Your task to perform on an android device: Open Google Maps and go to "Timeline" Image 0: 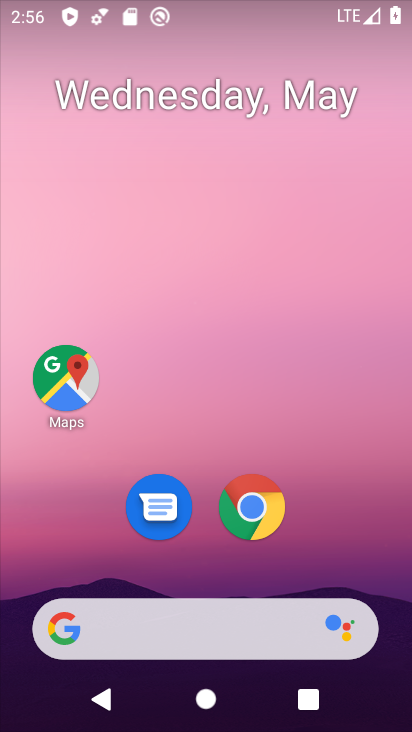
Step 0: drag from (348, 501) to (275, 44)
Your task to perform on an android device: Open Google Maps and go to "Timeline" Image 1: 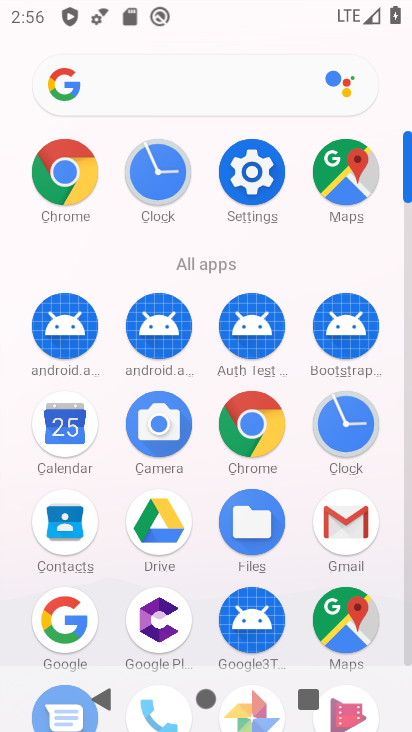
Step 1: drag from (5, 563) to (25, 260)
Your task to perform on an android device: Open Google Maps and go to "Timeline" Image 2: 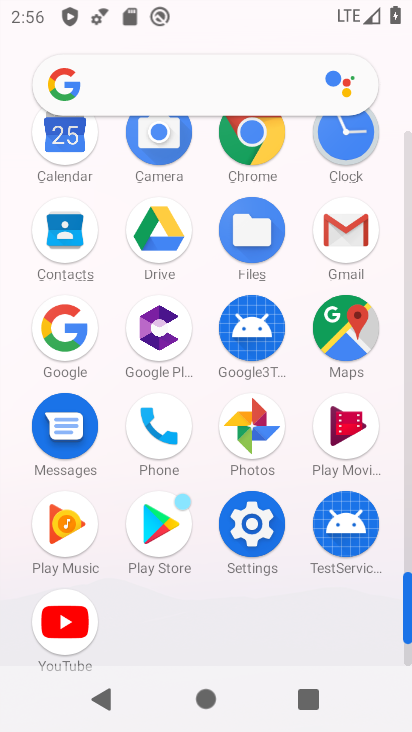
Step 2: click (345, 322)
Your task to perform on an android device: Open Google Maps and go to "Timeline" Image 3: 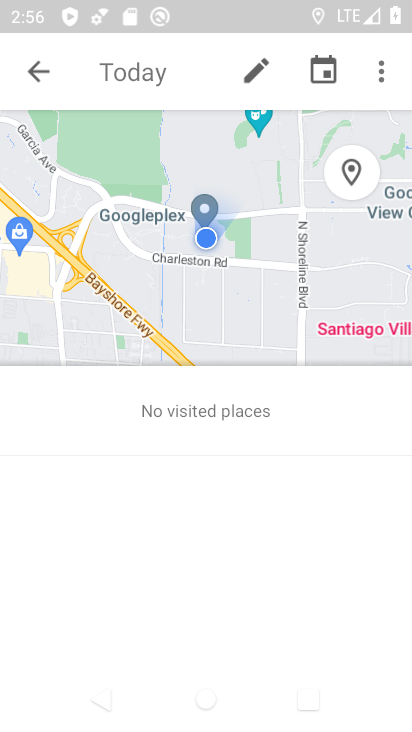
Step 3: click (43, 56)
Your task to perform on an android device: Open Google Maps and go to "Timeline" Image 4: 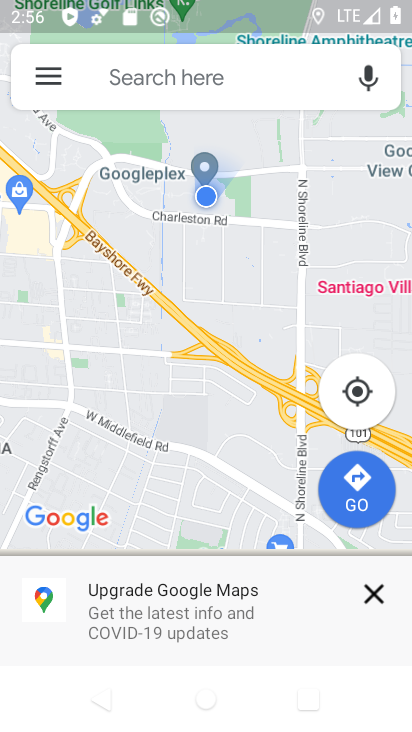
Step 4: click (40, 65)
Your task to perform on an android device: Open Google Maps and go to "Timeline" Image 5: 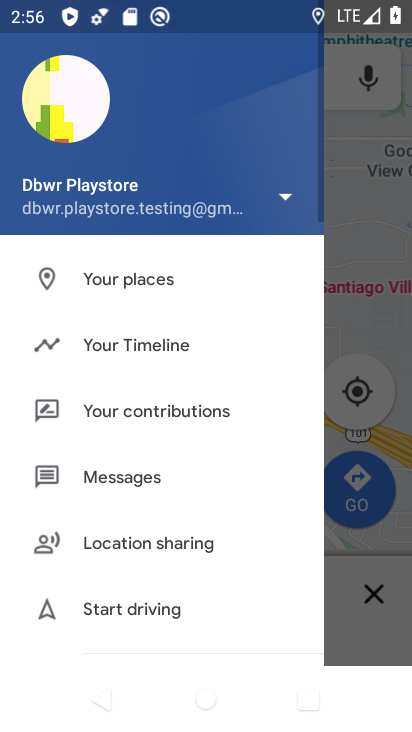
Step 5: click (129, 351)
Your task to perform on an android device: Open Google Maps and go to "Timeline" Image 6: 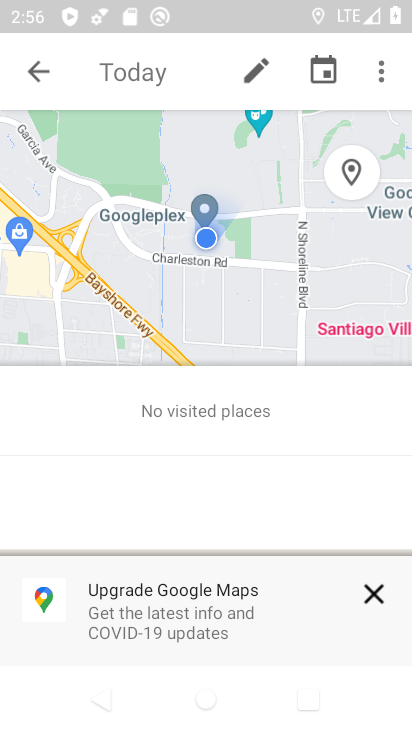
Step 6: task complete